Your task to perform on an android device: open the mobile data screen to see how much data has been used Image 0: 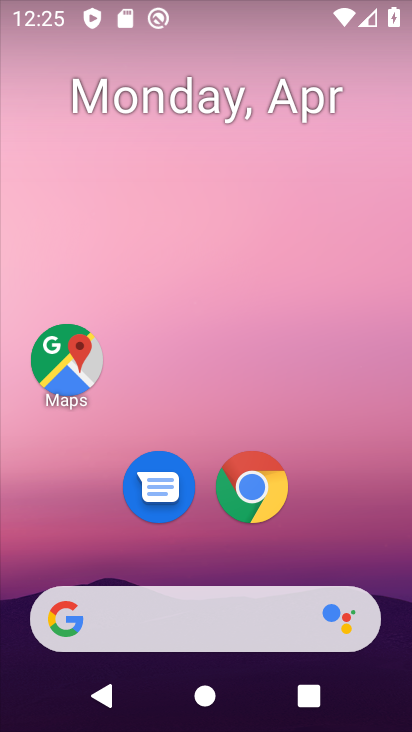
Step 0: drag from (394, 617) to (258, 75)
Your task to perform on an android device: open the mobile data screen to see how much data has been used Image 1: 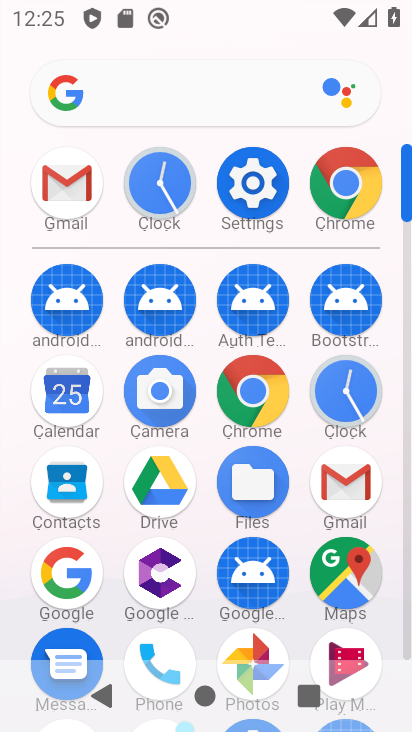
Step 1: click (231, 198)
Your task to perform on an android device: open the mobile data screen to see how much data has been used Image 2: 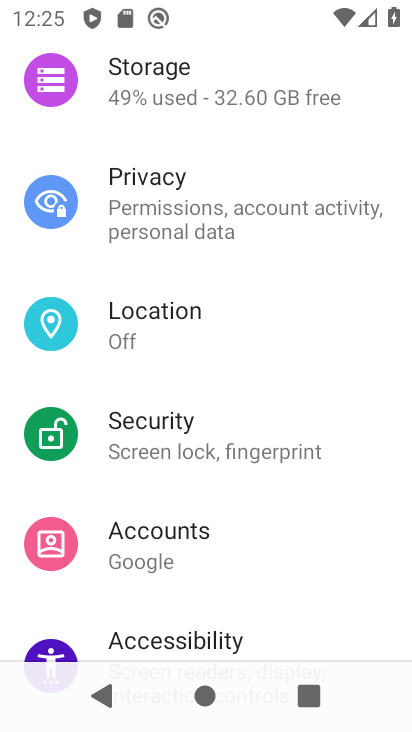
Step 2: drag from (280, 153) to (211, 595)
Your task to perform on an android device: open the mobile data screen to see how much data has been used Image 3: 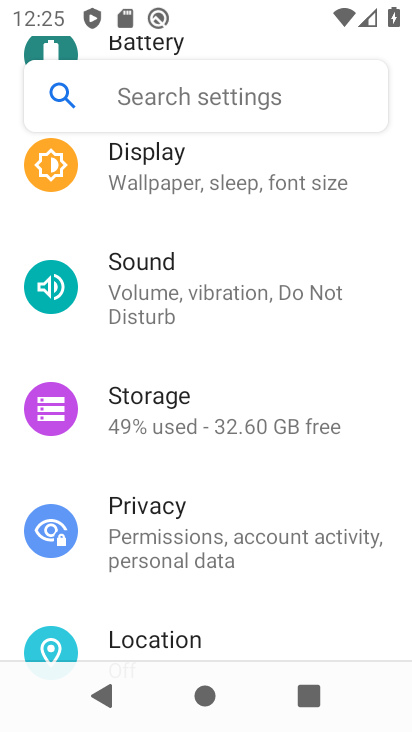
Step 3: drag from (203, 223) to (166, 566)
Your task to perform on an android device: open the mobile data screen to see how much data has been used Image 4: 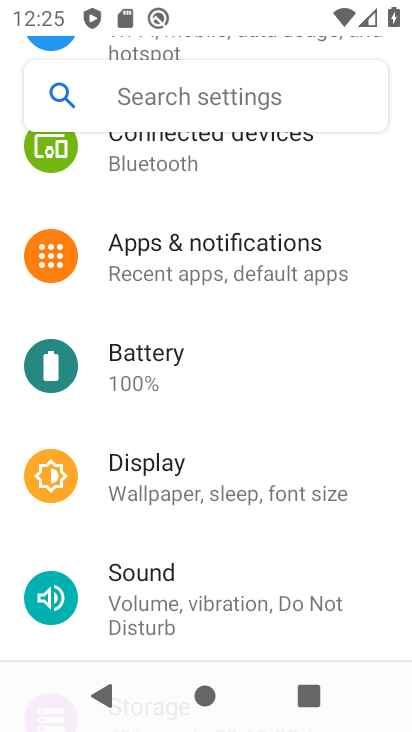
Step 4: drag from (175, 289) to (196, 600)
Your task to perform on an android device: open the mobile data screen to see how much data has been used Image 5: 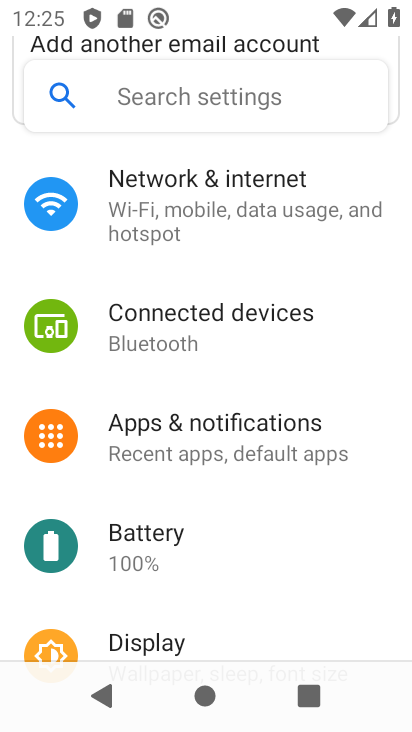
Step 5: drag from (189, 259) to (188, 540)
Your task to perform on an android device: open the mobile data screen to see how much data has been used Image 6: 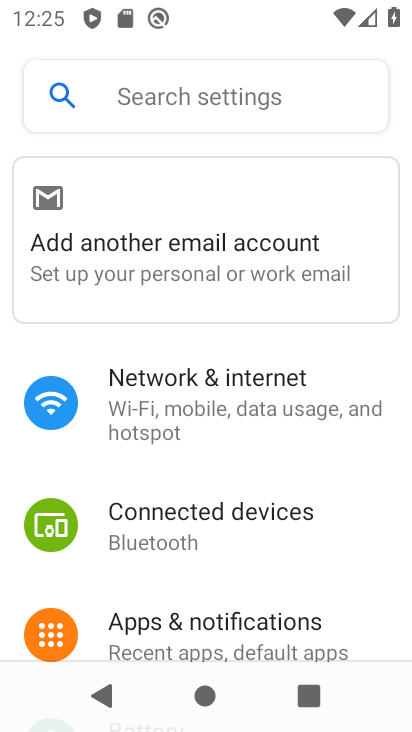
Step 6: click (210, 440)
Your task to perform on an android device: open the mobile data screen to see how much data has been used Image 7: 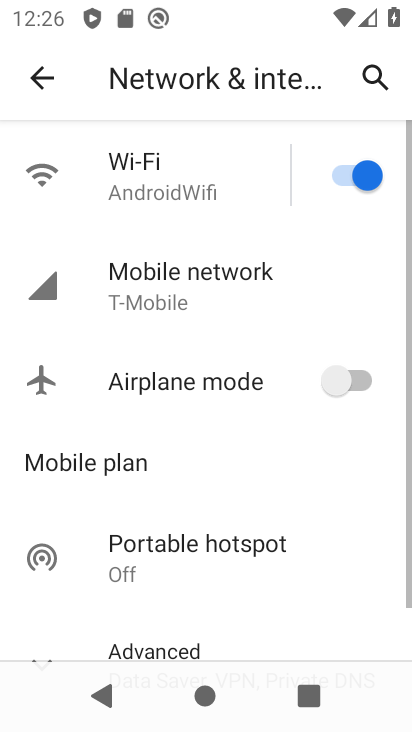
Step 7: click (170, 314)
Your task to perform on an android device: open the mobile data screen to see how much data has been used Image 8: 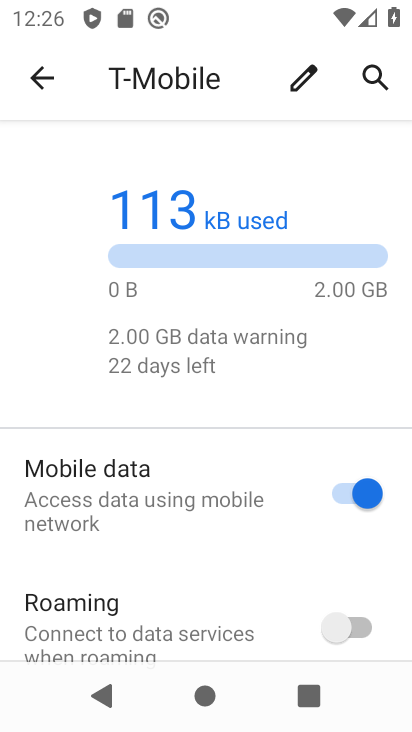
Step 8: drag from (191, 566) to (201, 262)
Your task to perform on an android device: open the mobile data screen to see how much data has been used Image 9: 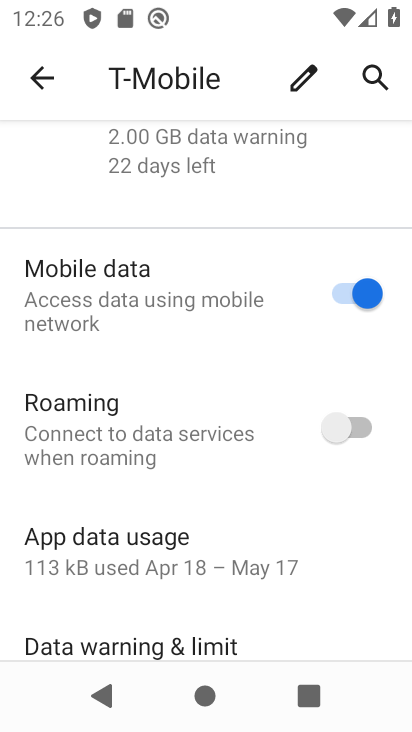
Step 9: click (205, 558)
Your task to perform on an android device: open the mobile data screen to see how much data has been used Image 10: 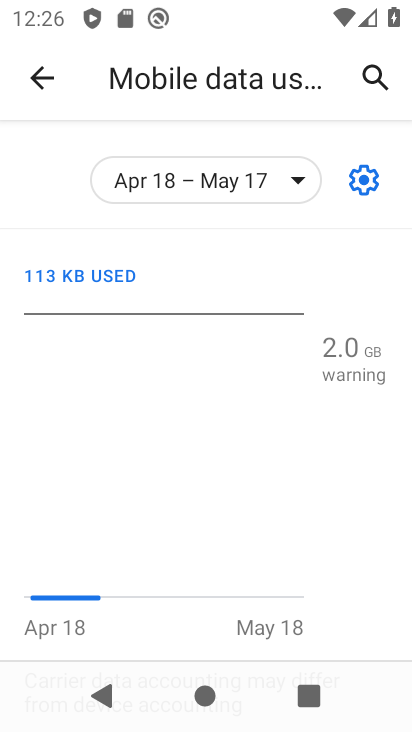
Step 10: task complete